Your task to perform on an android device: Open ESPN.com Image 0: 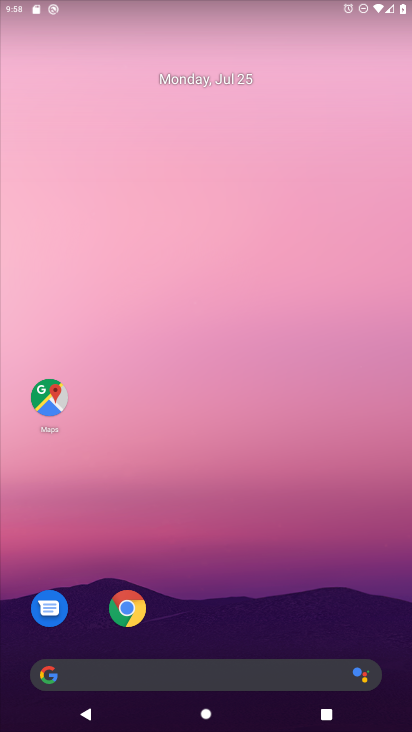
Step 0: click (177, 680)
Your task to perform on an android device: Open ESPN.com Image 1: 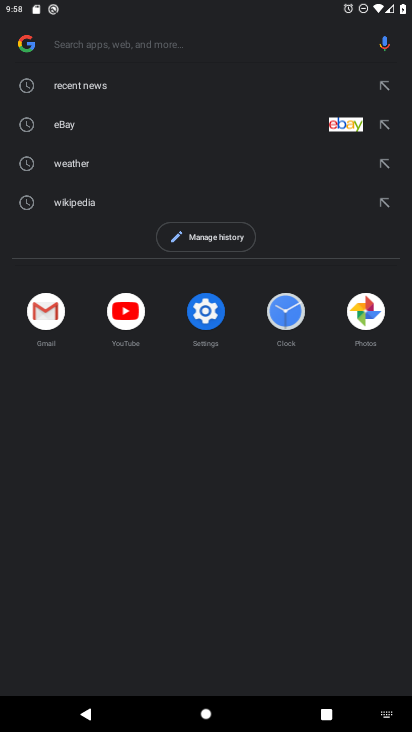
Step 1: type "espn.com"
Your task to perform on an android device: Open ESPN.com Image 2: 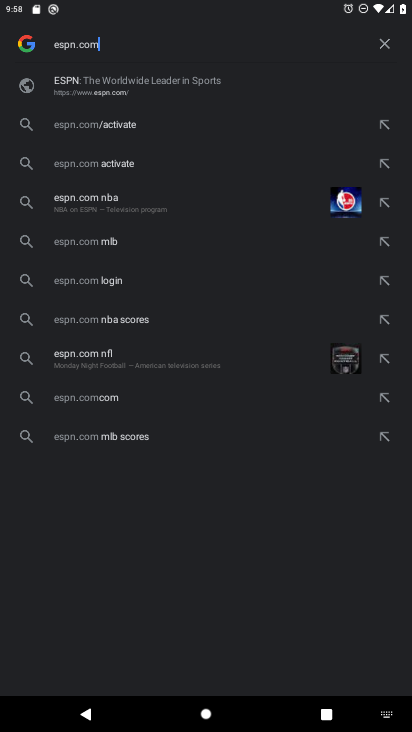
Step 2: click (195, 72)
Your task to perform on an android device: Open ESPN.com Image 3: 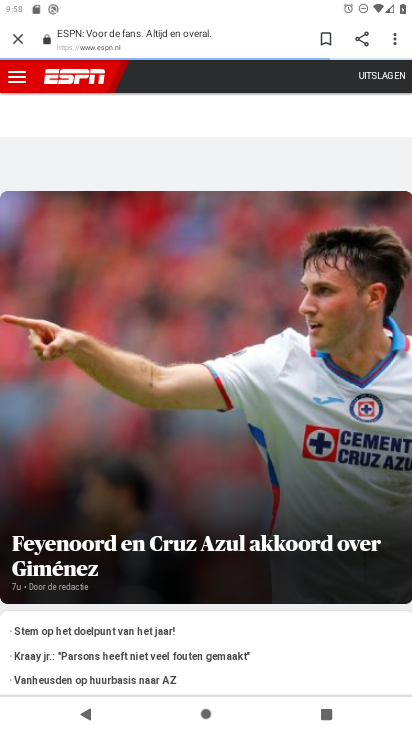
Step 3: task complete